Your task to perform on an android device: allow cookies in the chrome app Image 0: 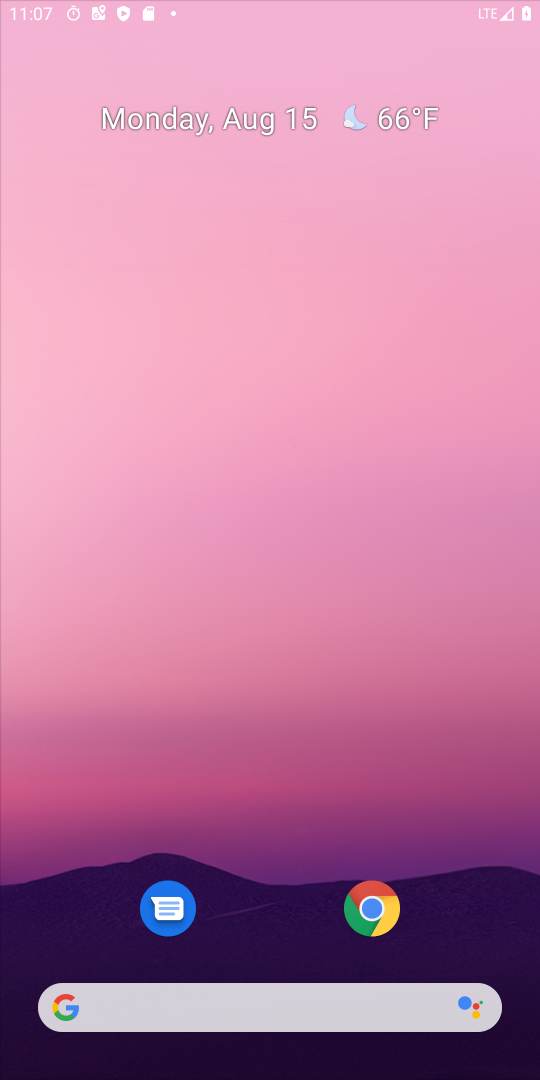
Step 0: drag from (265, 400) to (71, 522)
Your task to perform on an android device: allow cookies in the chrome app Image 1: 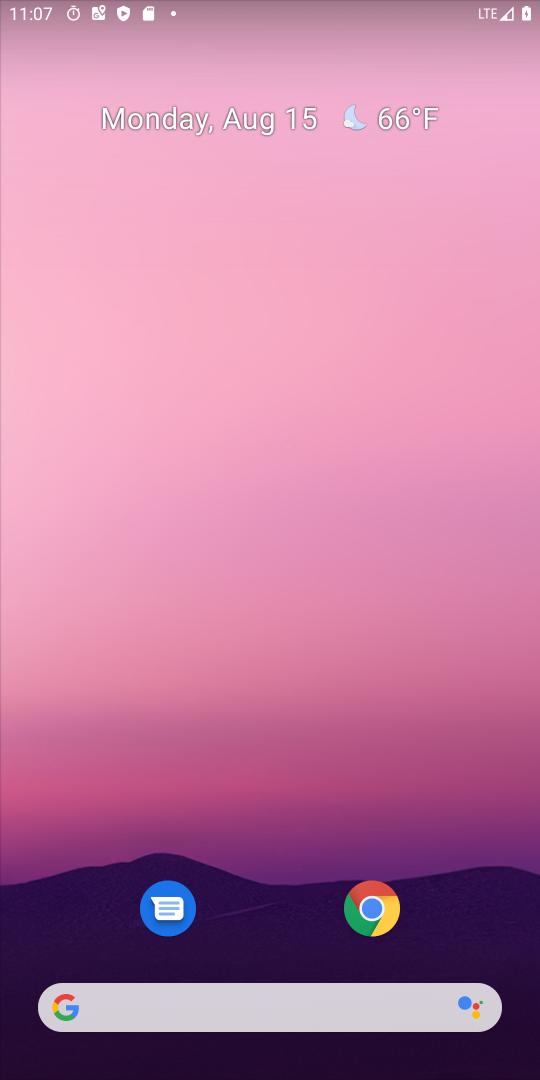
Step 1: click (386, 909)
Your task to perform on an android device: allow cookies in the chrome app Image 2: 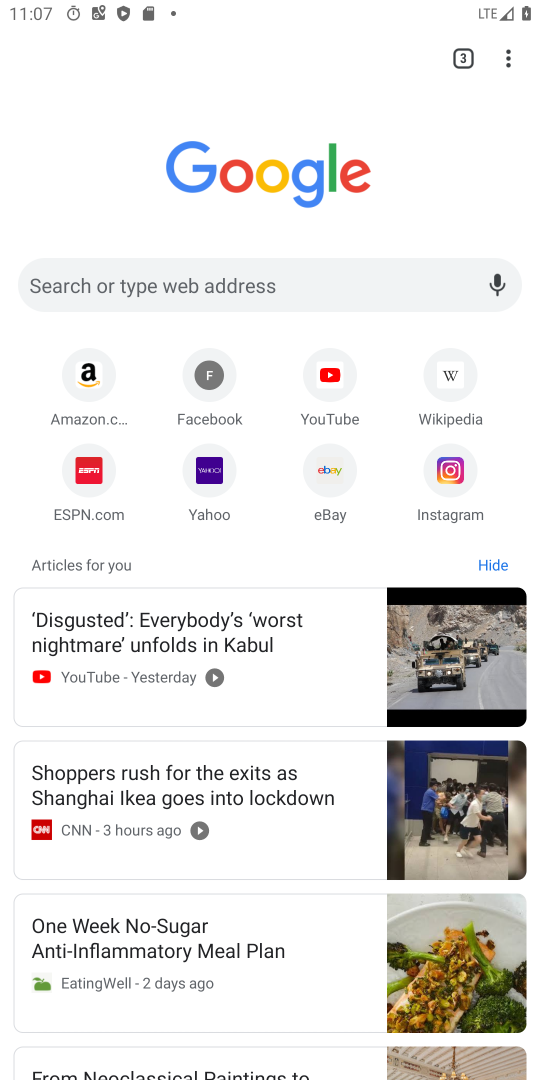
Step 2: click (512, 58)
Your task to perform on an android device: allow cookies in the chrome app Image 3: 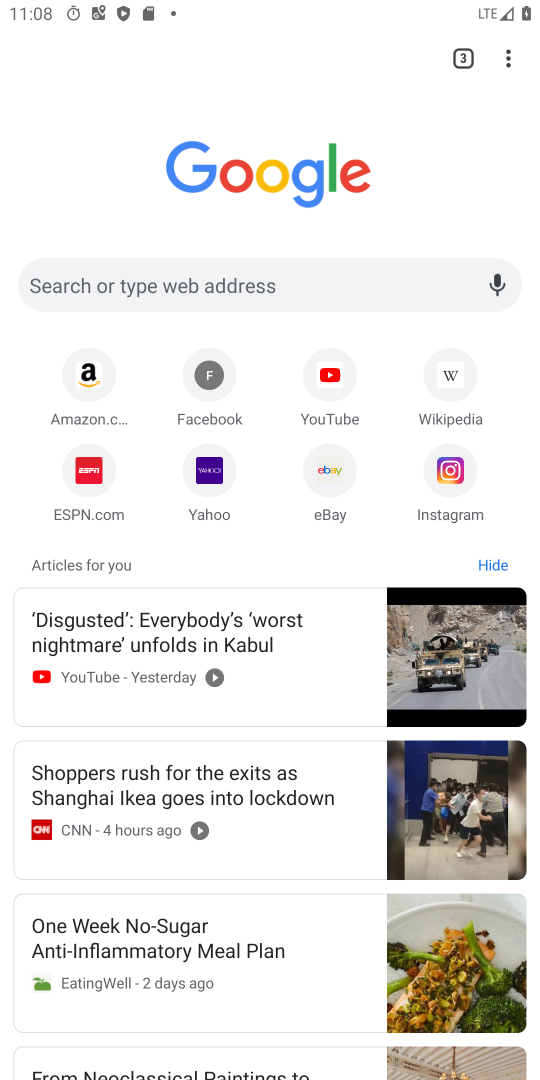
Step 3: click (494, 61)
Your task to perform on an android device: allow cookies in the chrome app Image 4: 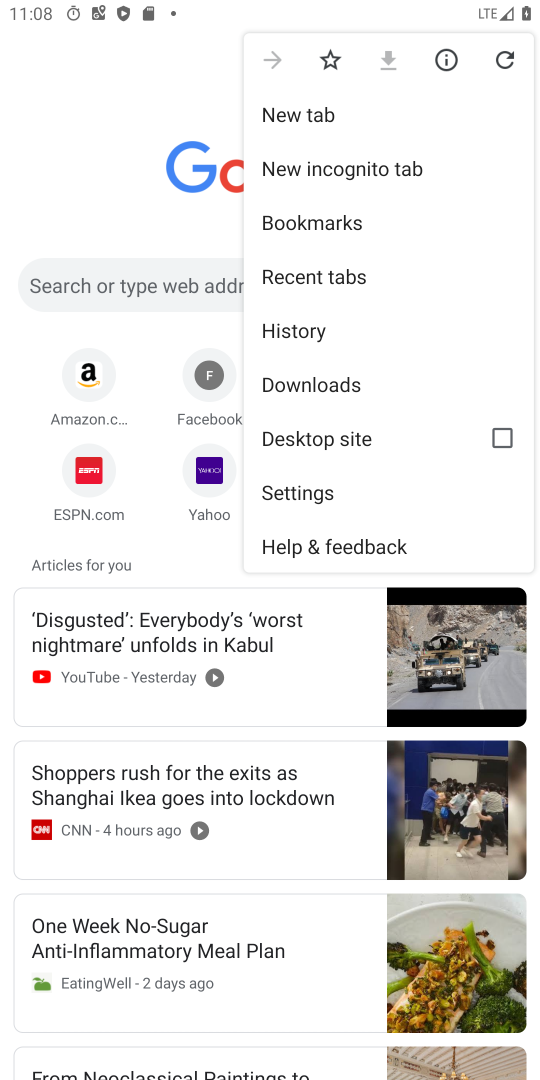
Step 4: click (340, 501)
Your task to perform on an android device: allow cookies in the chrome app Image 5: 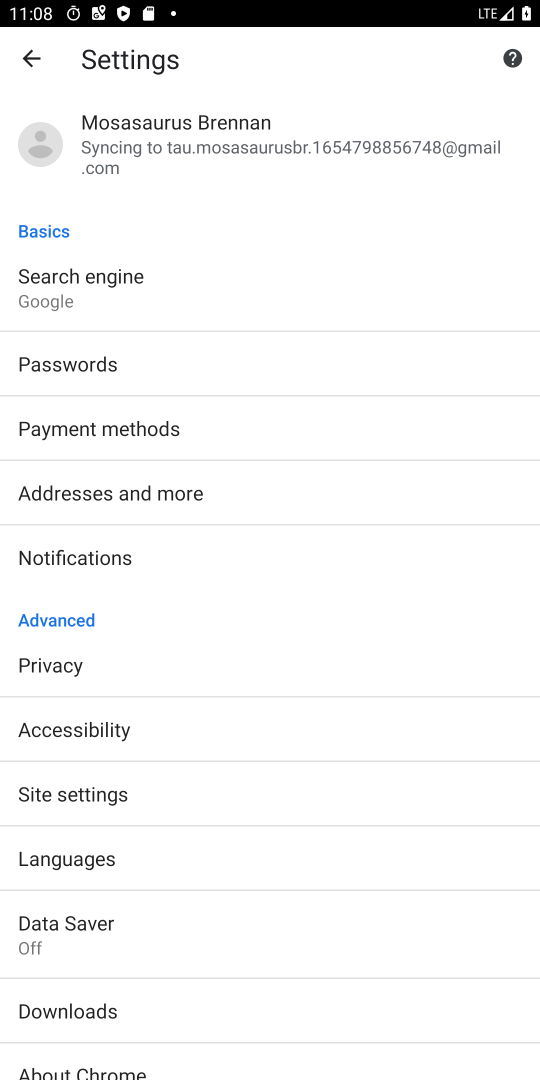
Step 5: click (180, 781)
Your task to perform on an android device: allow cookies in the chrome app Image 6: 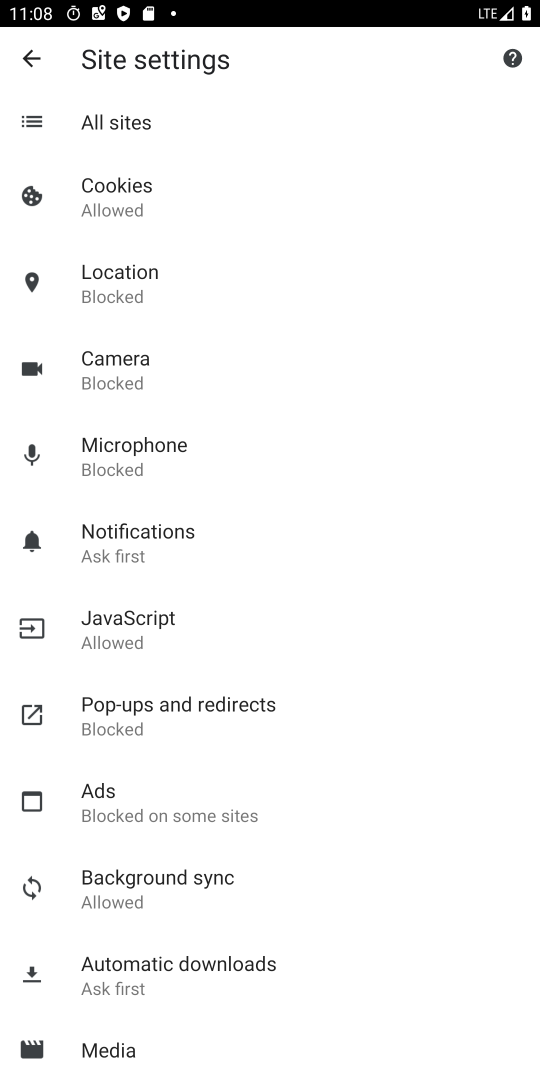
Step 6: click (127, 193)
Your task to perform on an android device: allow cookies in the chrome app Image 7: 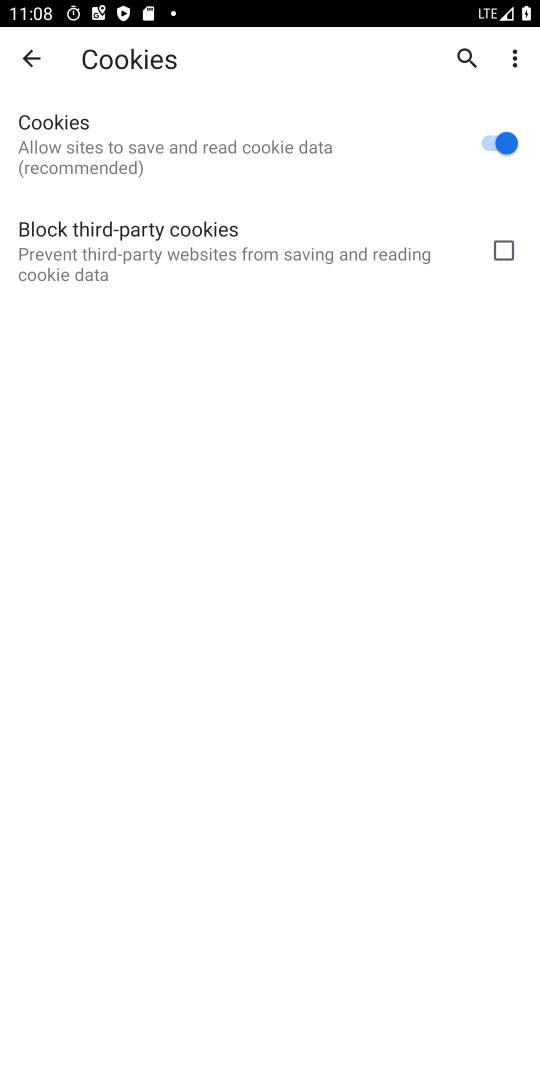
Step 7: task complete